Your task to perform on an android device: turn off improve location accuracy Image 0: 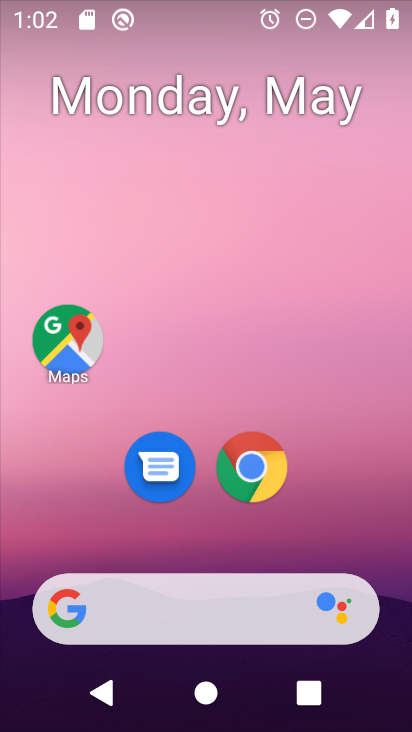
Step 0: drag from (377, 555) to (287, 35)
Your task to perform on an android device: turn off improve location accuracy Image 1: 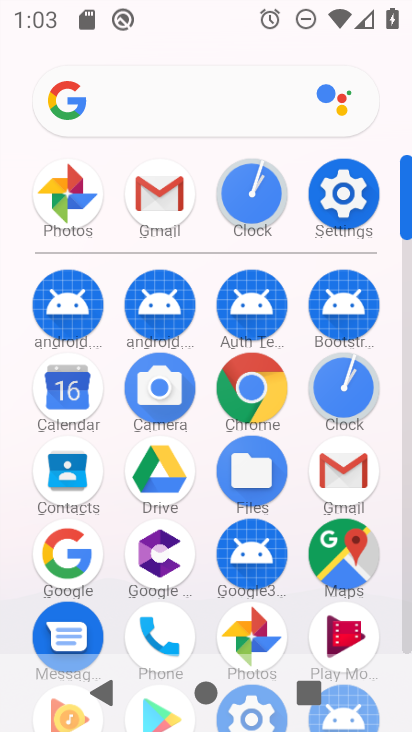
Step 1: click (345, 203)
Your task to perform on an android device: turn off improve location accuracy Image 2: 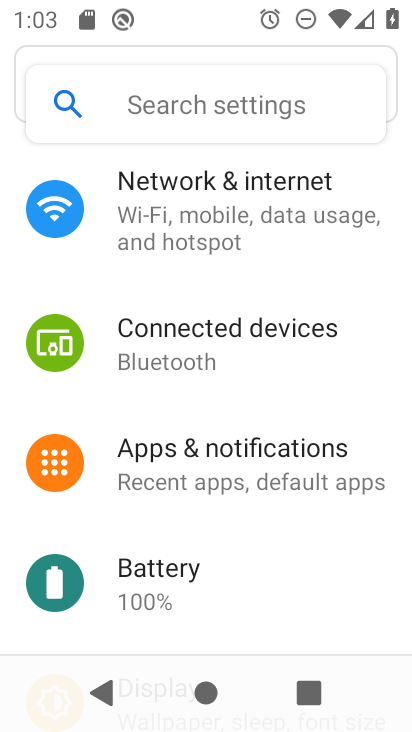
Step 2: drag from (334, 559) to (338, 124)
Your task to perform on an android device: turn off improve location accuracy Image 3: 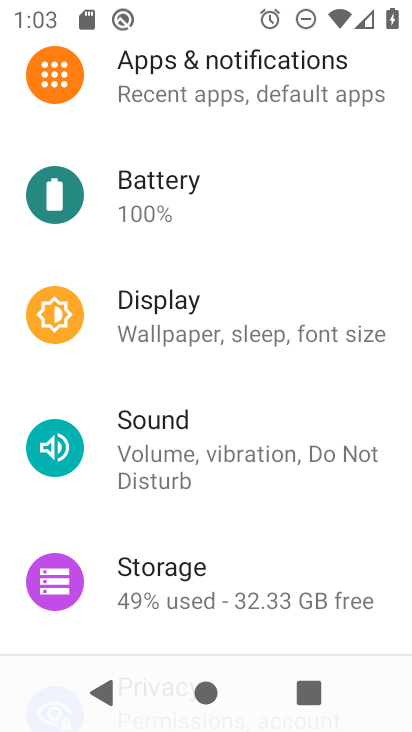
Step 3: drag from (318, 410) to (335, 96)
Your task to perform on an android device: turn off improve location accuracy Image 4: 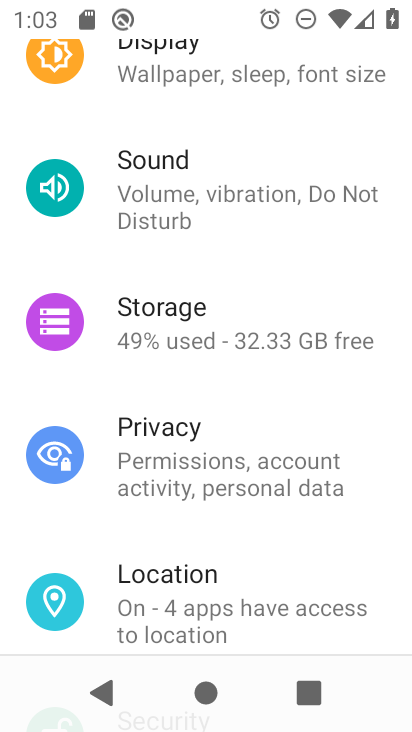
Step 4: drag from (316, 479) to (312, 147)
Your task to perform on an android device: turn off improve location accuracy Image 5: 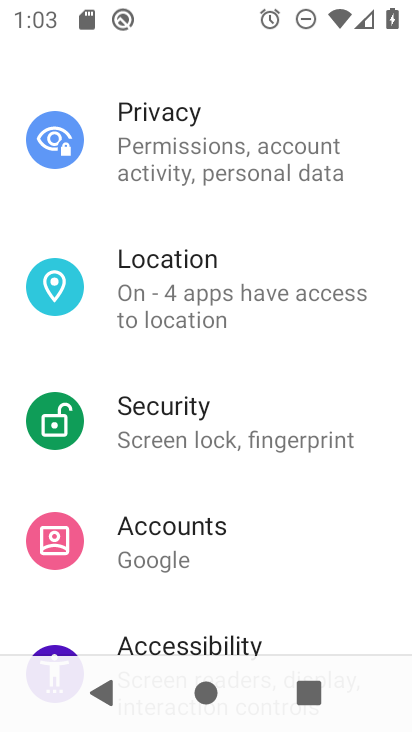
Step 5: click (163, 290)
Your task to perform on an android device: turn off improve location accuracy Image 6: 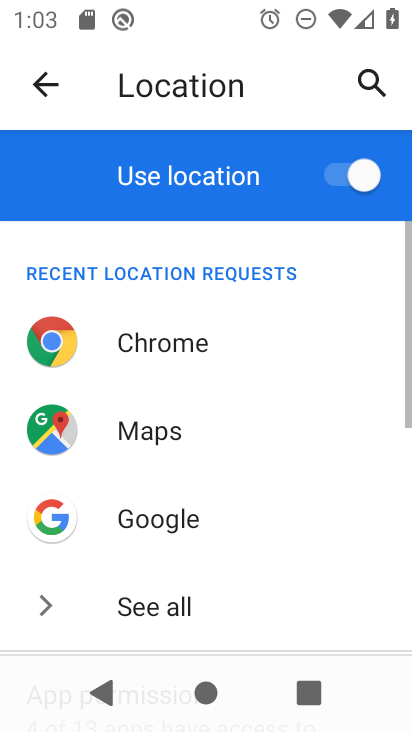
Step 6: drag from (296, 491) to (304, 152)
Your task to perform on an android device: turn off improve location accuracy Image 7: 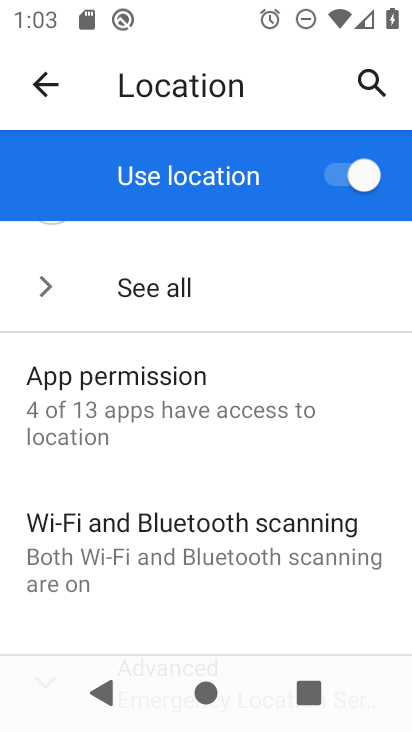
Step 7: drag from (260, 470) to (277, 212)
Your task to perform on an android device: turn off improve location accuracy Image 8: 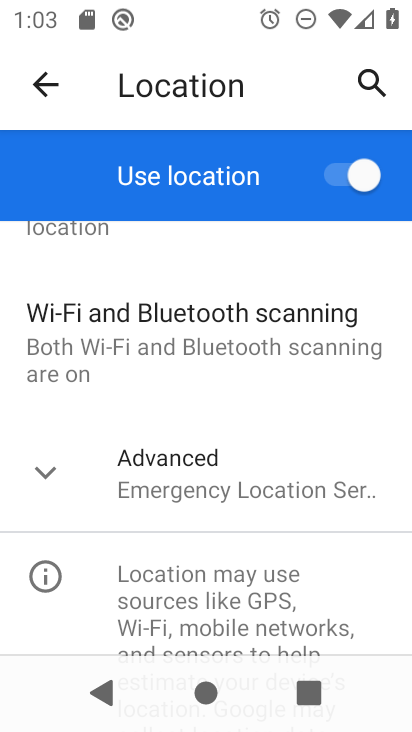
Step 8: click (44, 479)
Your task to perform on an android device: turn off improve location accuracy Image 9: 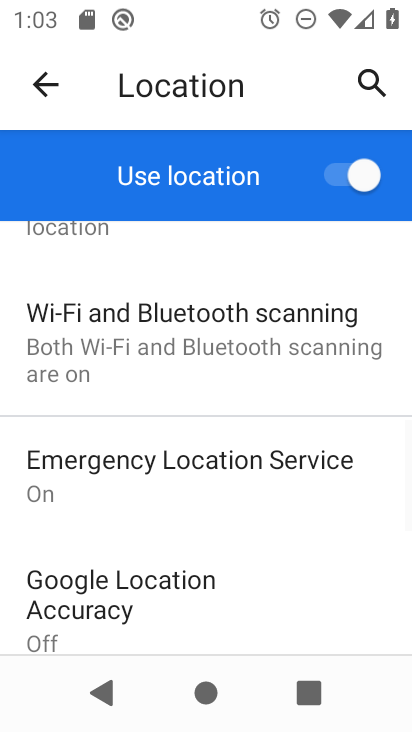
Step 9: drag from (248, 292) to (248, 257)
Your task to perform on an android device: turn off improve location accuracy Image 10: 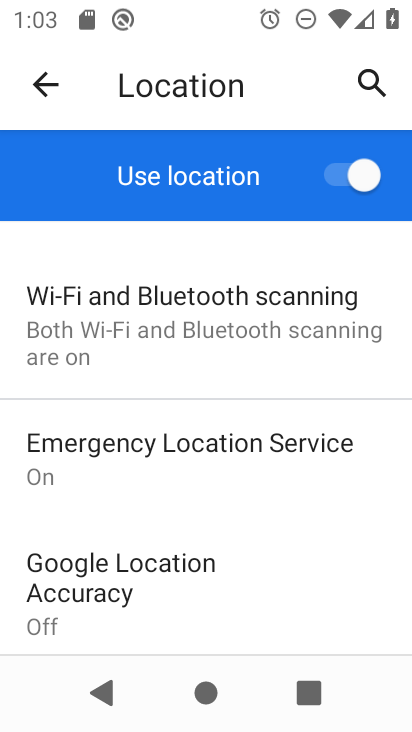
Step 10: click (75, 596)
Your task to perform on an android device: turn off improve location accuracy Image 11: 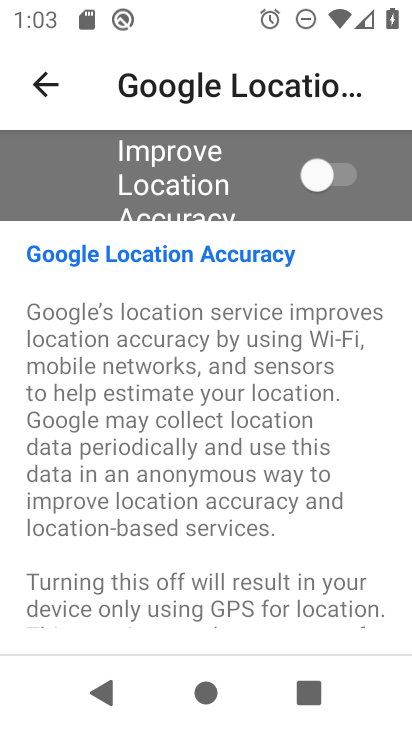
Step 11: task complete